Your task to perform on an android device: delete a single message in the gmail app Image 0: 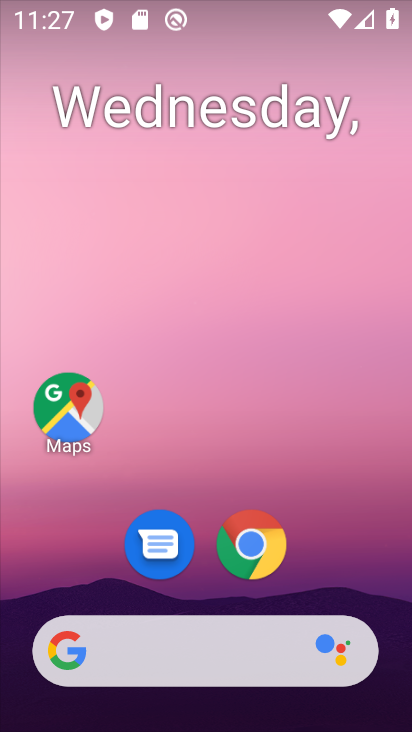
Step 0: drag from (313, 583) to (231, 251)
Your task to perform on an android device: delete a single message in the gmail app Image 1: 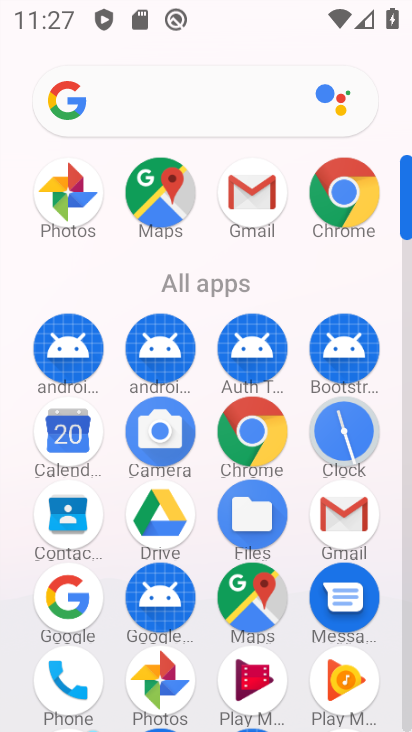
Step 1: click (255, 212)
Your task to perform on an android device: delete a single message in the gmail app Image 2: 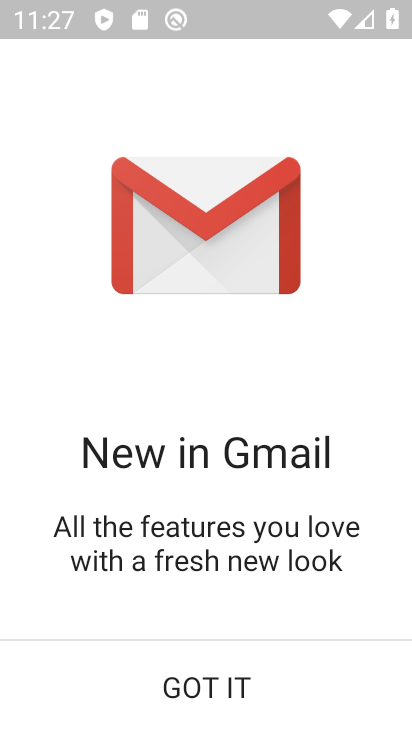
Step 2: click (201, 696)
Your task to perform on an android device: delete a single message in the gmail app Image 3: 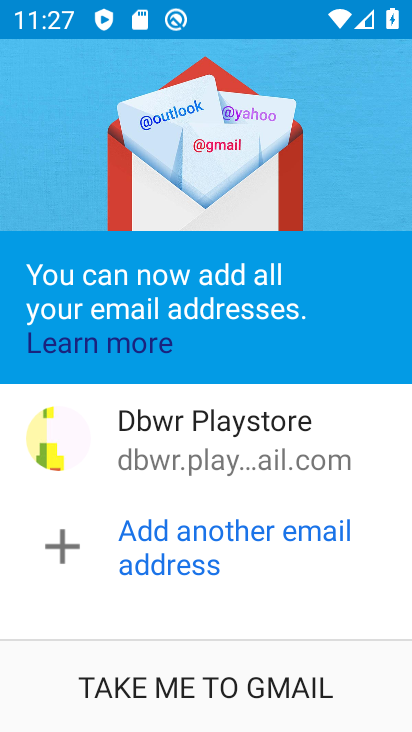
Step 3: click (199, 697)
Your task to perform on an android device: delete a single message in the gmail app Image 4: 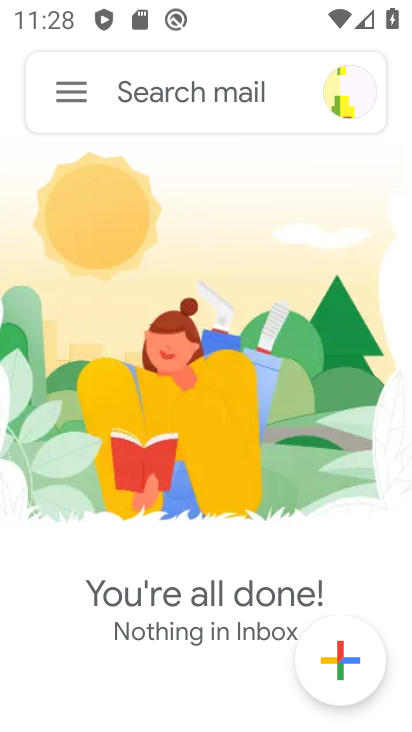
Step 4: click (74, 97)
Your task to perform on an android device: delete a single message in the gmail app Image 5: 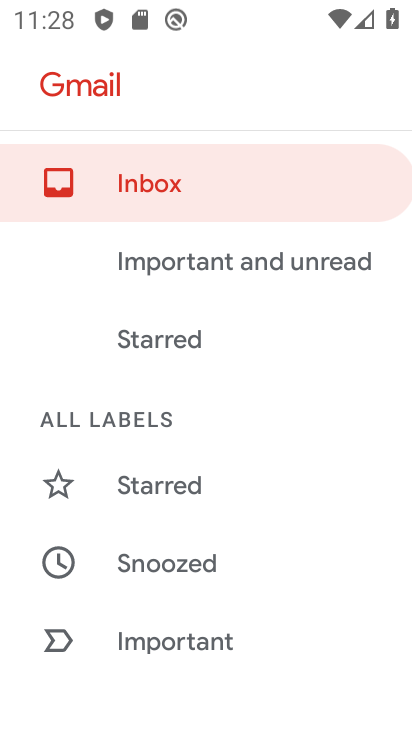
Step 5: drag from (193, 452) to (263, 273)
Your task to perform on an android device: delete a single message in the gmail app Image 6: 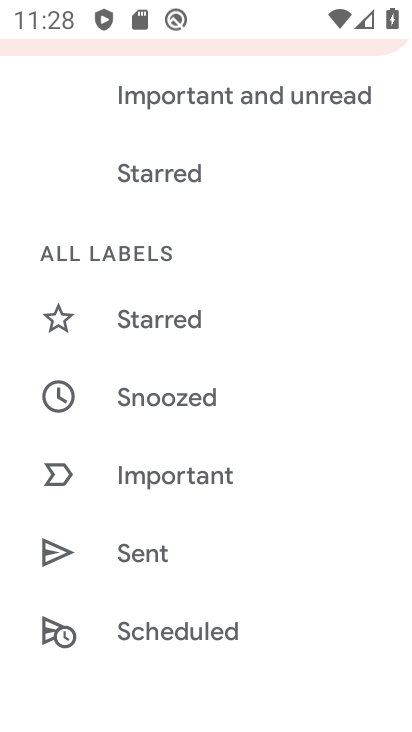
Step 6: drag from (157, 634) to (211, 312)
Your task to perform on an android device: delete a single message in the gmail app Image 7: 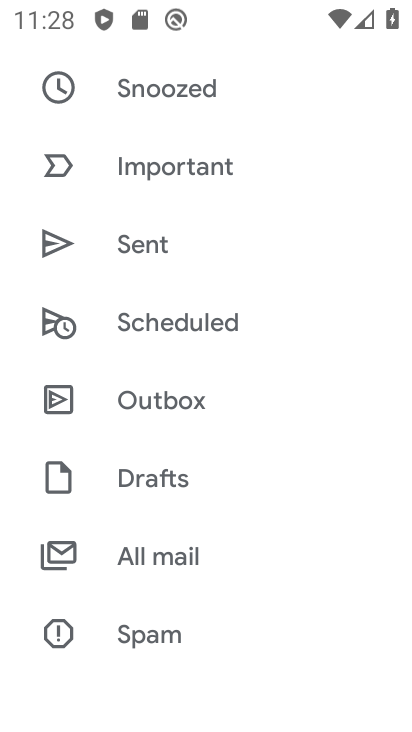
Step 7: click (164, 548)
Your task to perform on an android device: delete a single message in the gmail app Image 8: 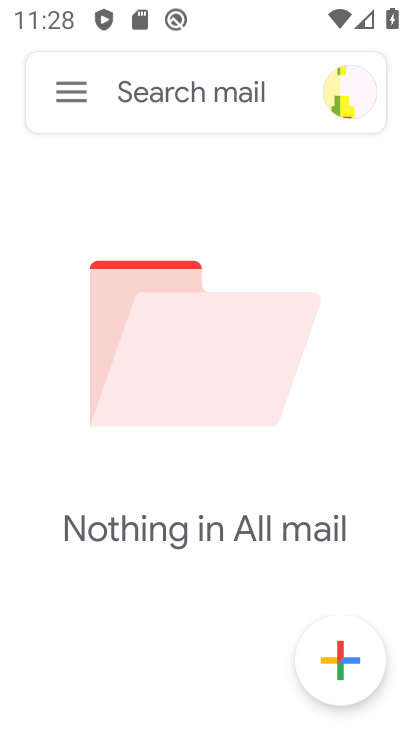
Step 8: task complete